Your task to perform on an android device: Open the map Image 0: 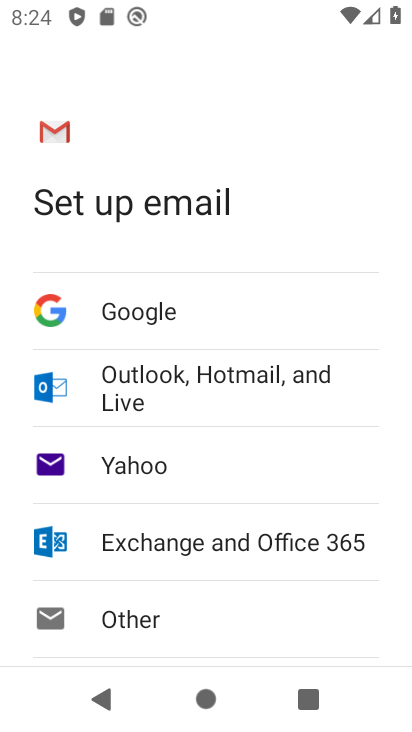
Step 0: drag from (398, 474) to (411, 325)
Your task to perform on an android device: Open the map Image 1: 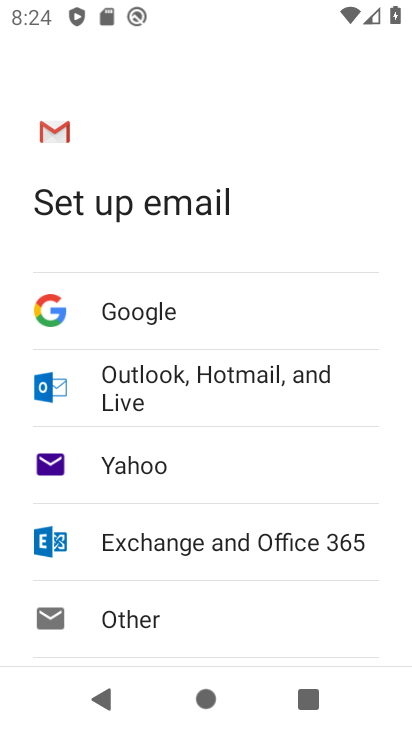
Step 1: press home button
Your task to perform on an android device: Open the map Image 2: 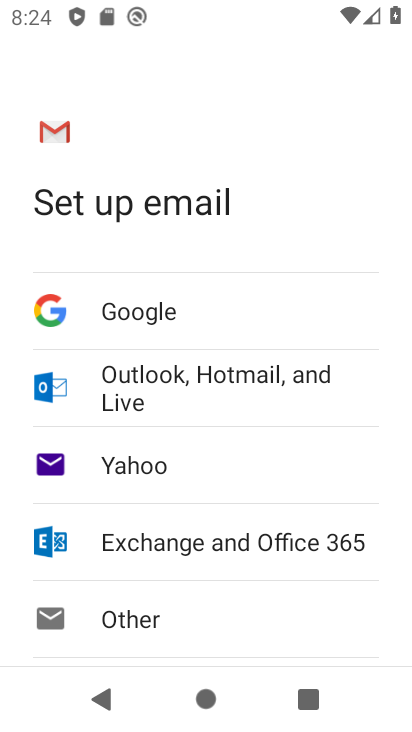
Step 2: drag from (411, 325) to (407, 530)
Your task to perform on an android device: Open the map Image 3: 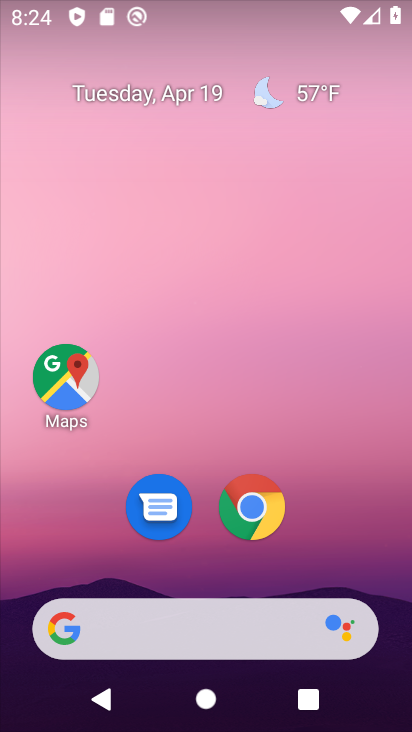
Step 3: click (79, 393)
Your task to perform on an android device: Open the map Image 4: 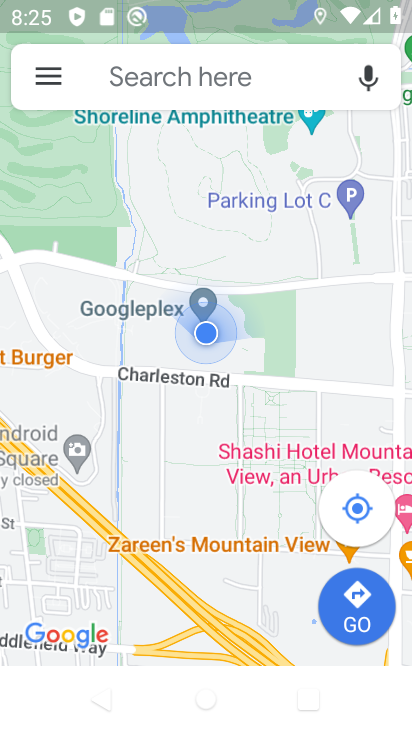
Step 4: task complete